Your task to perform on an android device: refresh tabs in the chrome app Image 0: 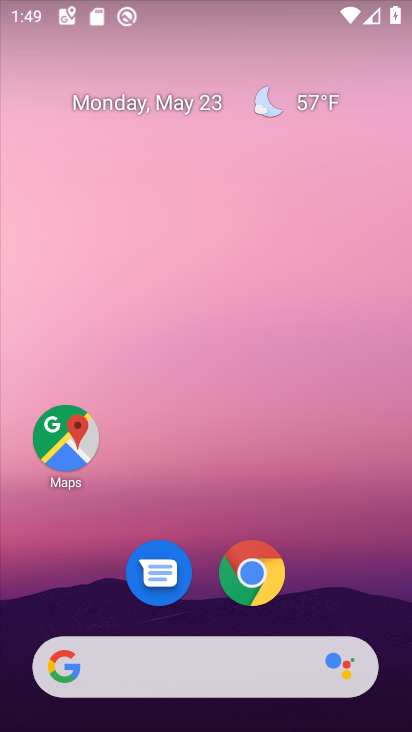
Step 0: click (247, 570)
Your task to perform on an android device: refresh tabs in the chrome app Image 1: 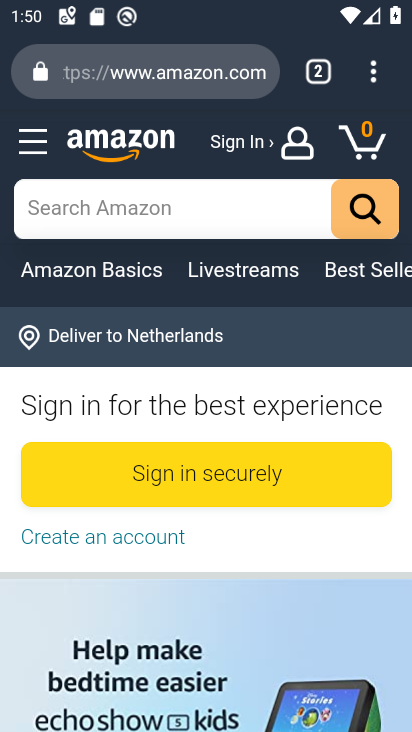
Step 1: click (372, 71)
Your task to perform on an android device: refresh tabs in the chrome app Image 2: 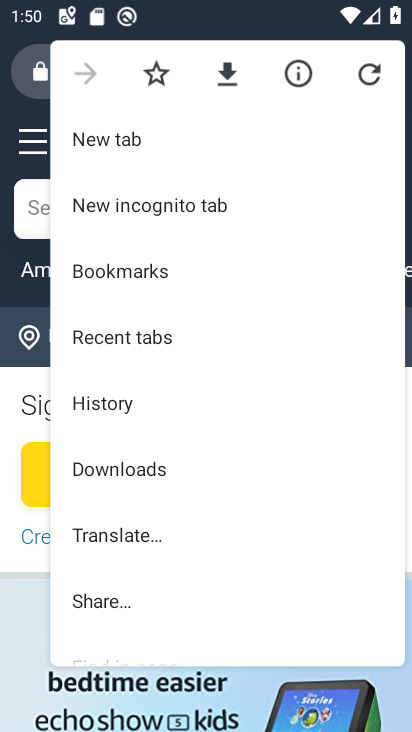
Step 2: drag from (149, 453) to (127, 96)
Your task to perform on an android device: refresh tabs in the chrome app Image 3: 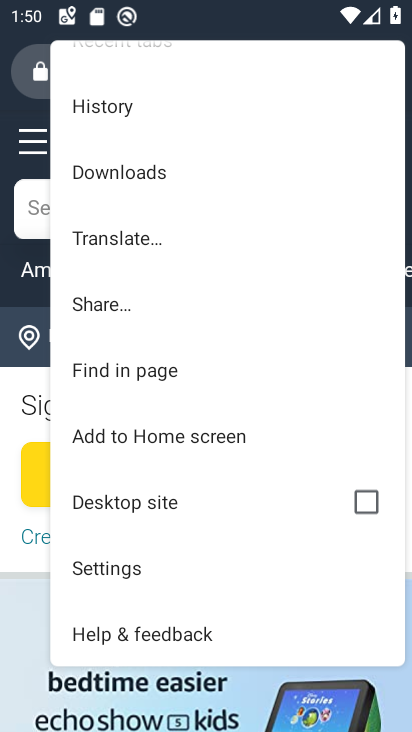
Step 3: drag from (193, 512) to (189, 88)
Your task to perform on an android device: refresh tabs in the chrome app Image 4: 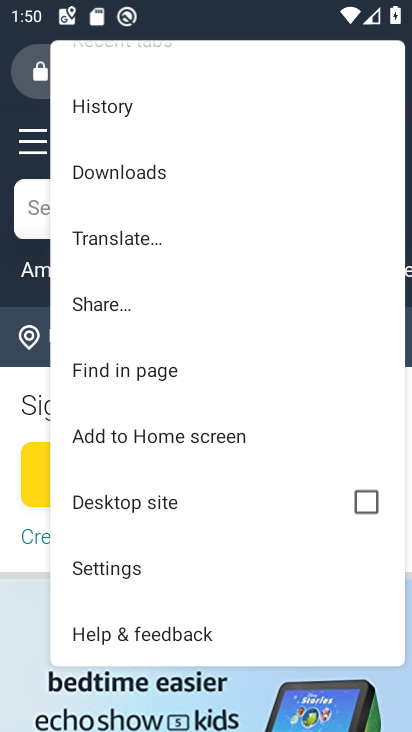
Step 4: drag from (251, 183) to (255, 660)
Your task to perform on an android device: refresh tabs in the chrome app Image 5: 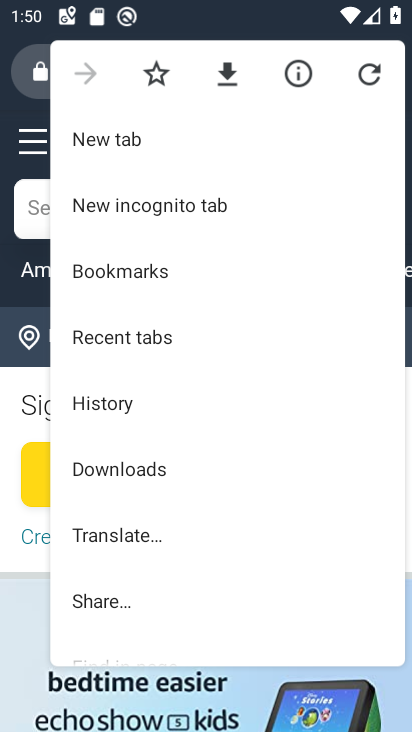
Step 5: click (372, 64)
Your task to perform on an android device: refresh tabs in the chrome app Image 6: 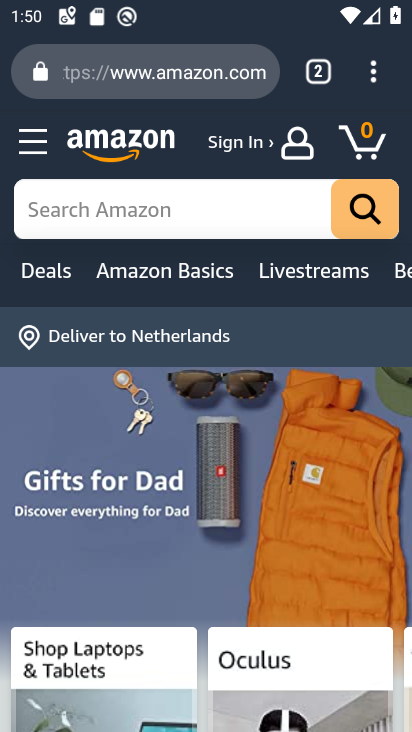
Step 6: task complete